Your task to perform on an android device: snooze an email in the gmail app Image 0: 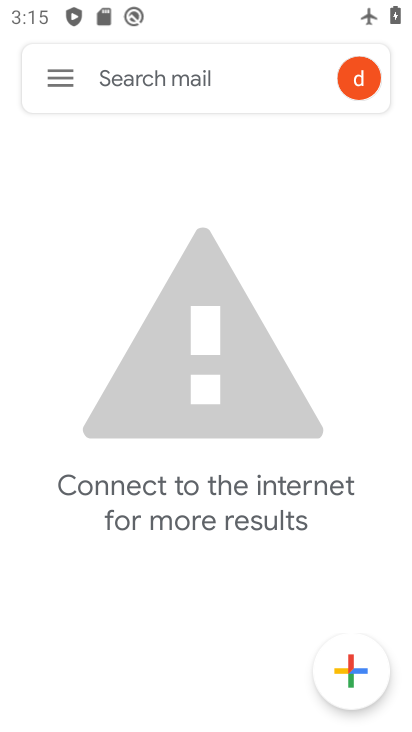
Step 0: press home button
Your task to perform on an android device: snooze an email in the gmail app Image 1: 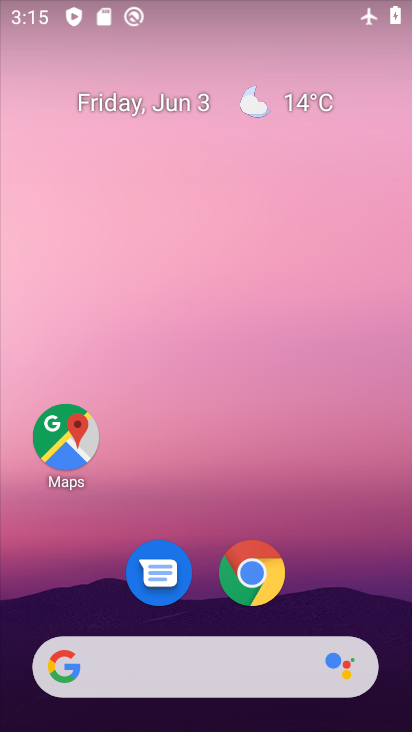
Step 1: drag from (191, 504) to (314, 79)
Your task to perform on an android device: snooze an email in the gmail app Image 2: 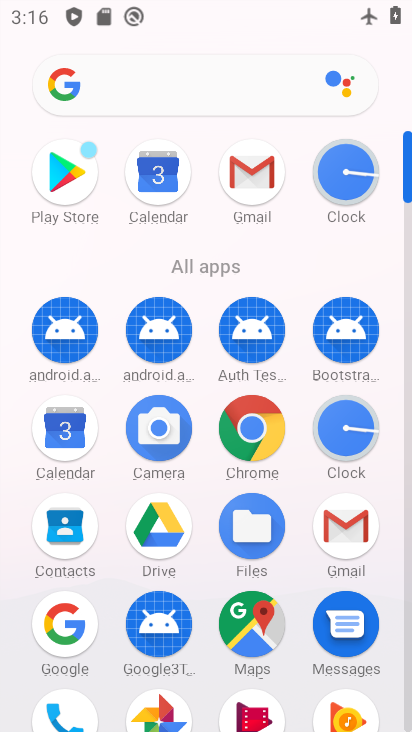
Step 2: click (256, 171)
Your task to perform on an android device: snooze an email in the gmail app Image 3: 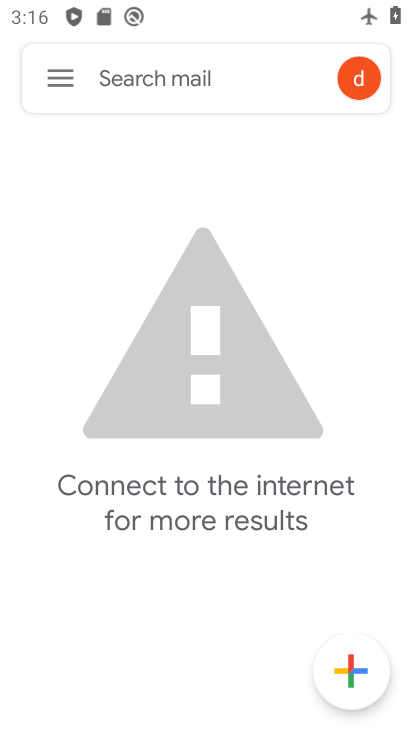
Step 3: click (56, 82)
Your task to perform on an android device: snooze an email in the gmail app Image 4: 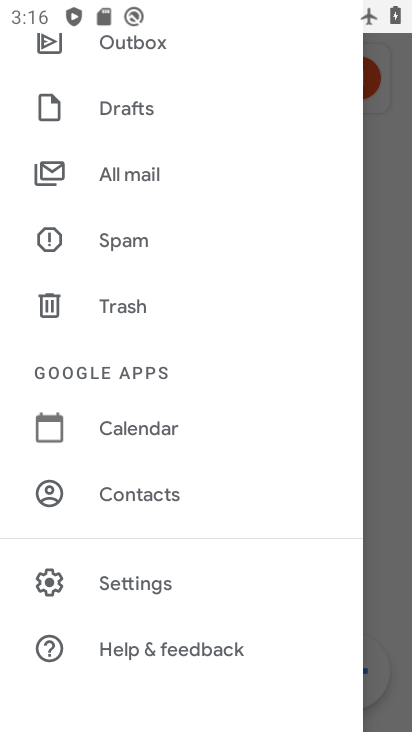
Step 4: click (125, 175)
Your task to perform on an android device: snooze an email in the gmail app Image 5: 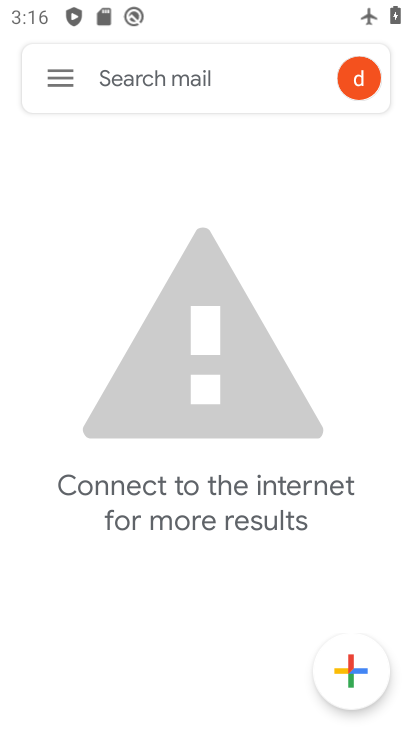
Step 5: task complete